Your task to perform on an android device: Open Wikipedia Image 0: 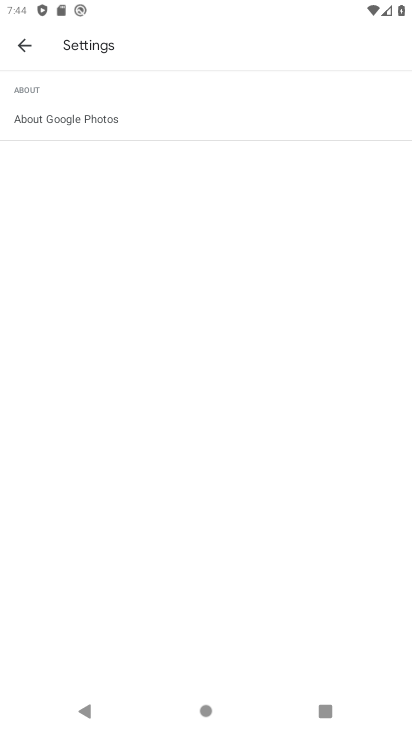
Step 0: press home button
Your task to perform on an android device: Open Wikipedia Image 1: 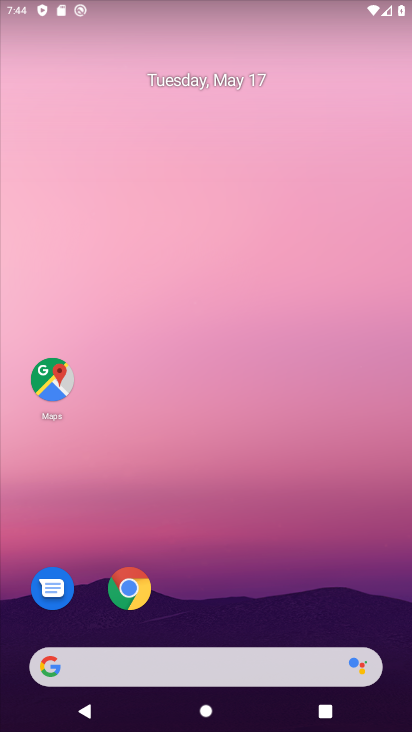
Step 1: click (138, 588)
Your task to perform on an android device: Open Wikipedia Image 2: 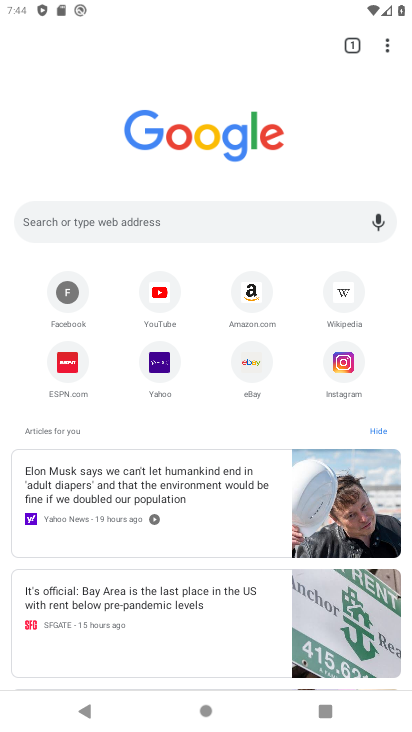
Step 2: click (176, 224)
Your task to perform on an android device: Open Wikipedia Image 3: 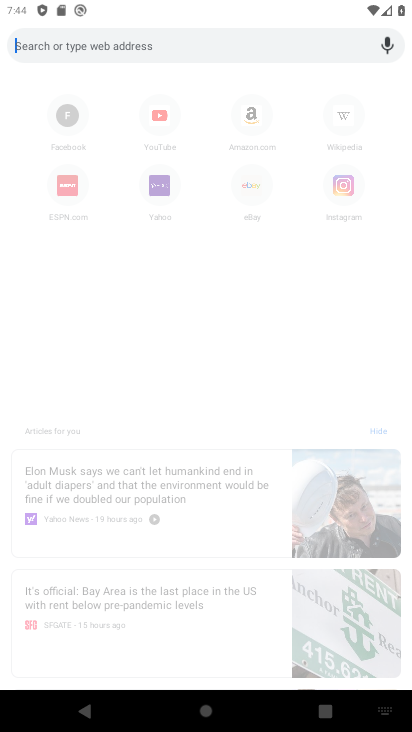
Step 3: type "Wikipedia"
Your task to perform on an android device: Open Wikipedia Image 4: 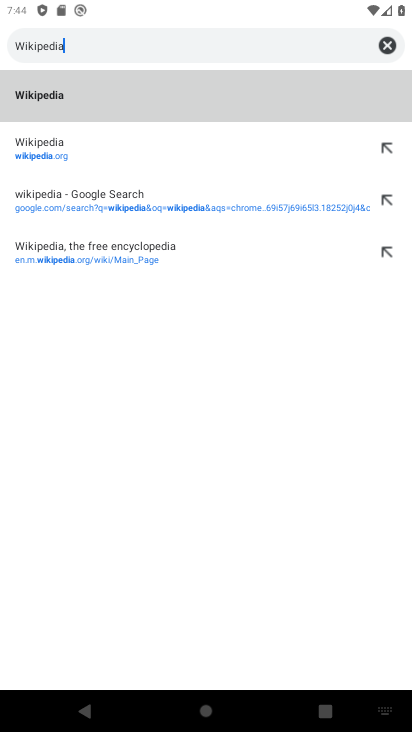
Step 4: click (31, 142)
Your task to perform on an android device: Open Wikipedia Image 5: 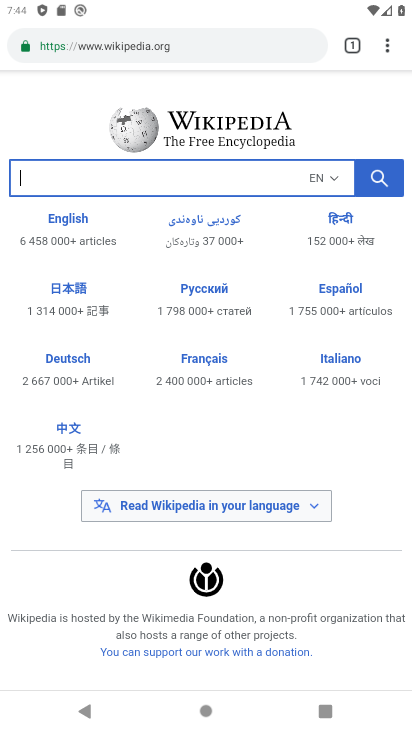
Step 5: task complete